Your task to perform on an android device: Search for pizza restaurants on Maps Image 0: 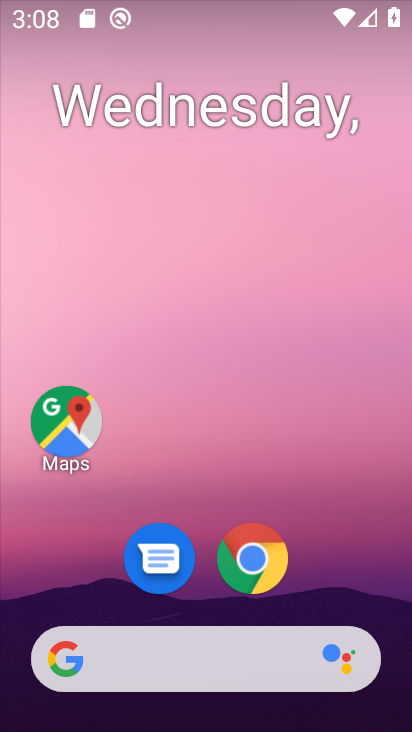
Step 0: click (54, 398)
Your task to perform on an android device: Search for pizza restaurants on Maps Image 1: 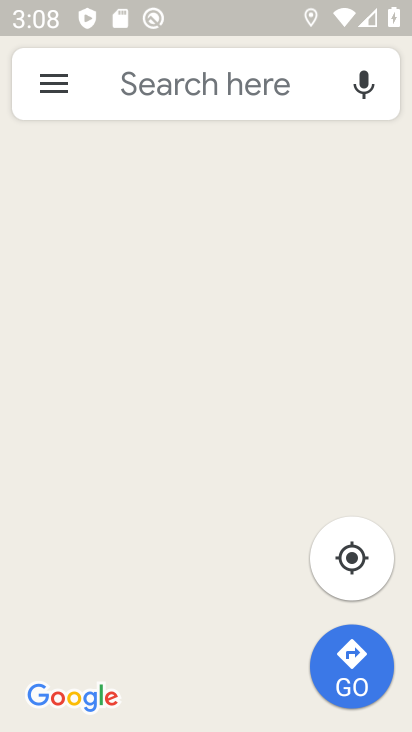
Step 1: click (126, 95)
Your task to perform on an android device: Search for pizza restaurants on Maps Image 2: 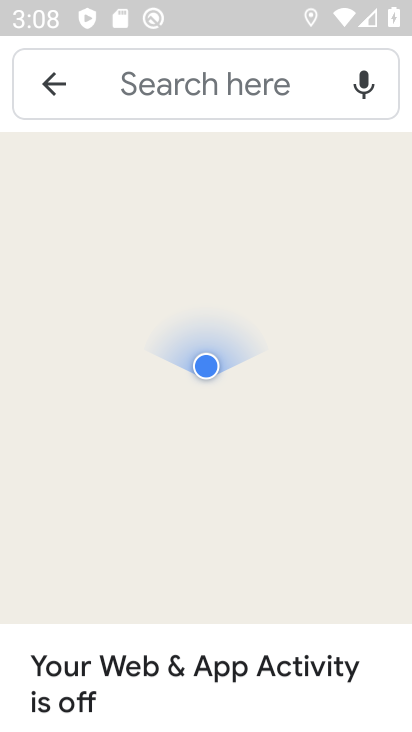
Step 2: click (197, 85)
Your task to perform on an android device: Search for pizza restaurants on Maps Image 3: 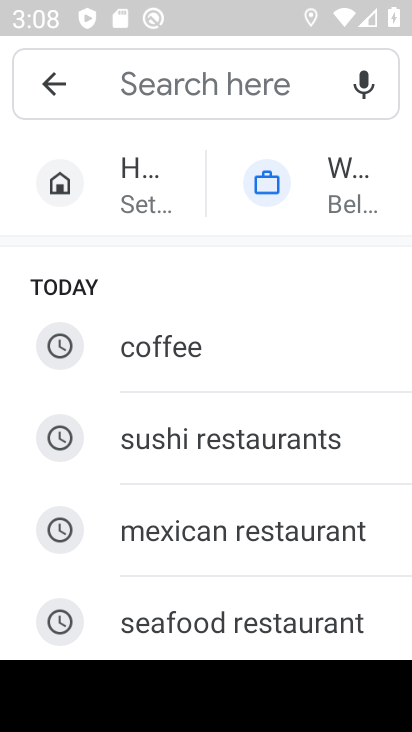
Step 3: type "pizza restaurants"
Your task to perform on an android device: Search for pizza restaurants on Maps Image 4: 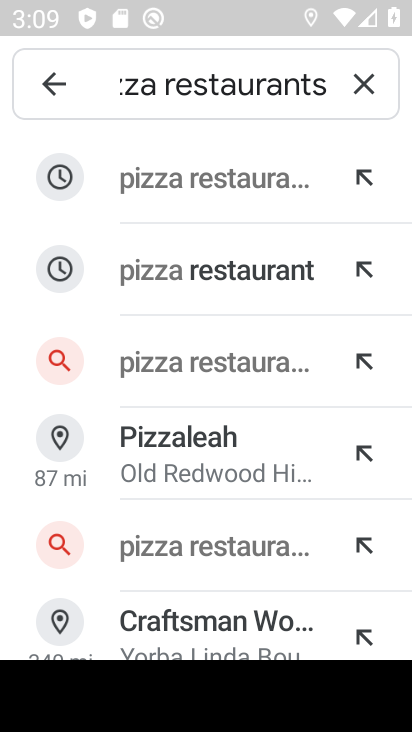
Step 4: click (239, 169)
Your task to perform on an android device: Search for pizza restaurants on Maps Image 5: 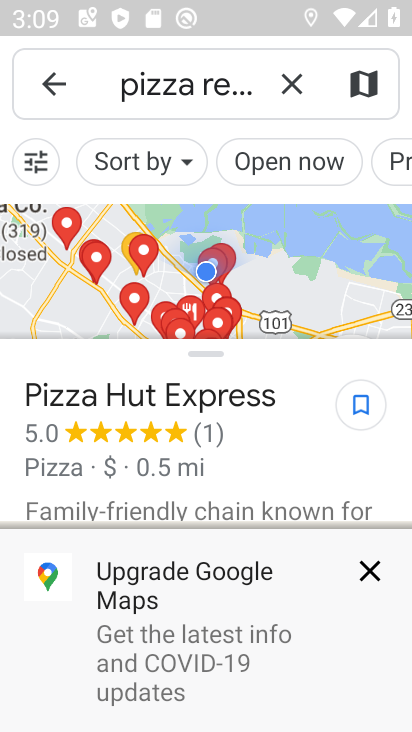
Step 5: task complete